Your task to perform on an android device: Open privacy settings Image 0: 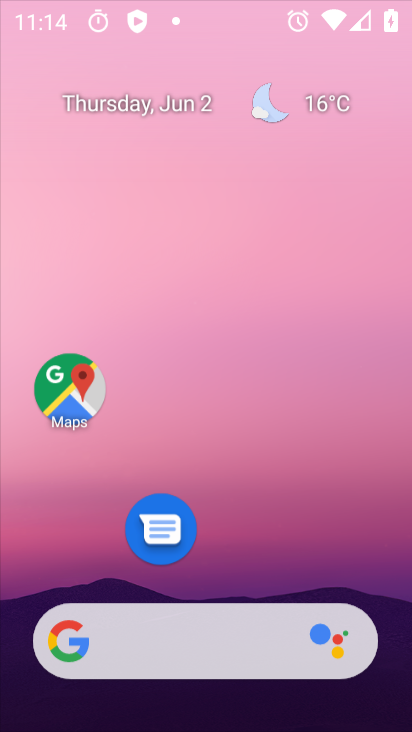
Step 0: click (154, 175)
Your task to perform on an android device: Open privacy settings Image 1: 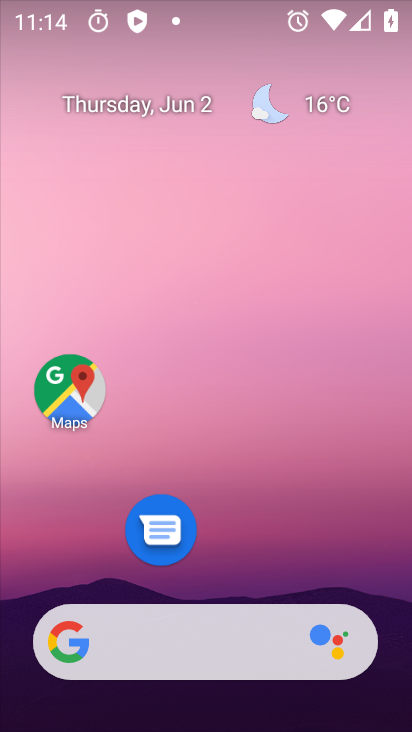
Step 1: drag from (250, 481) to (200, 151)
Your task to perform on an android device: Open privacy settings Image 2: 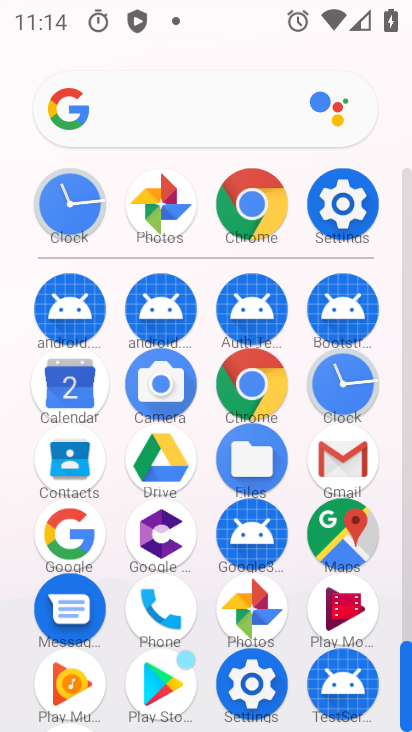
Step 2: click (361, 210)
Your task to perform on an android device: Open privacy settings Image 3: 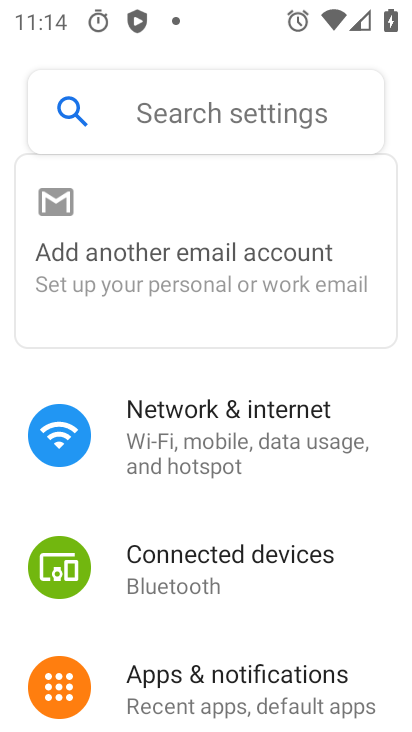
Step 3: click (135, 70)
Your task to perform on an android device: Open privacy settings Image 4: 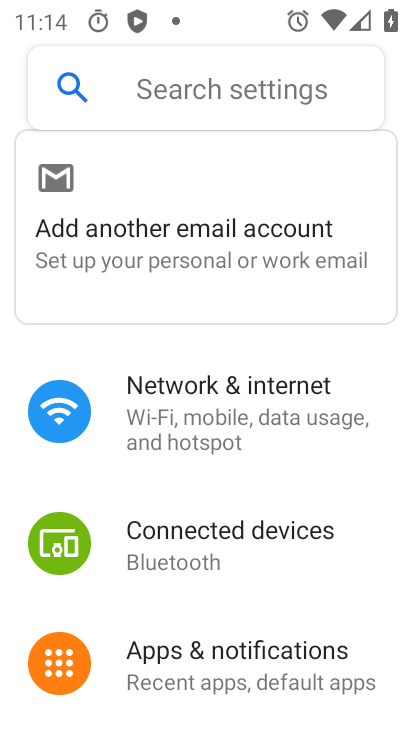
Step 4: drag from (202, 502) to (154, 214)
Your task to perform on an android device: Open privacy settings Image 5: 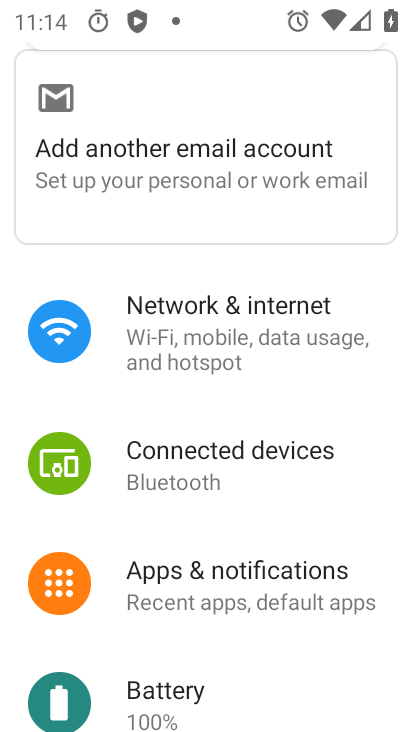
Step 5: drag from (220, 602) to (132, 304)
Your task to perform on an android device: Open privacy settings Image 6: 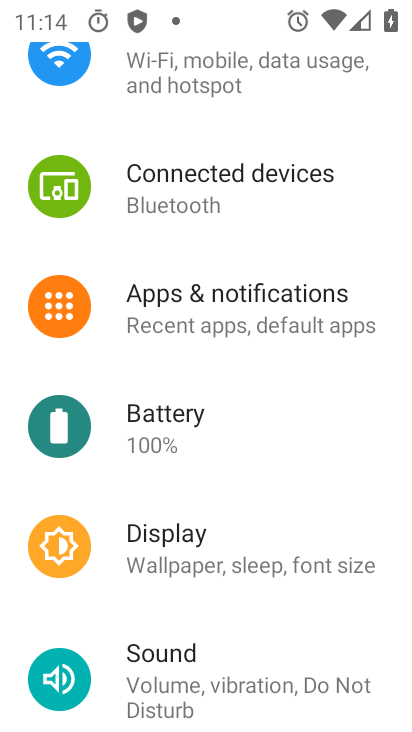
Step 6: drag from (179, 539) to (151, 291)
Your task to perform on an android device: Open privacy settings Image 7: 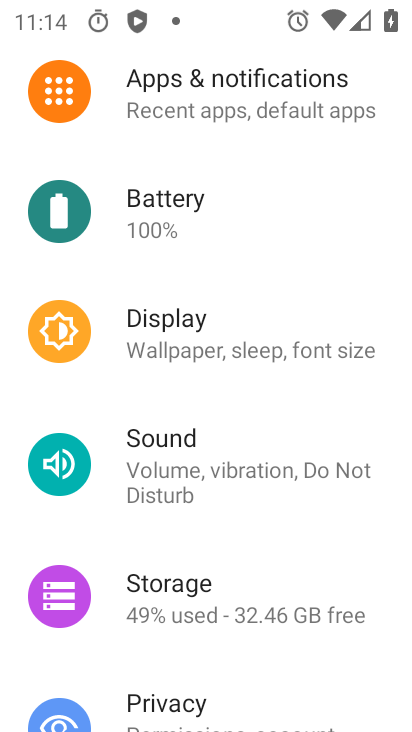
Step 7: drag from (242, 531) to (162, 202)
Your task to perform on an android device: Open privacy settings Image 8: 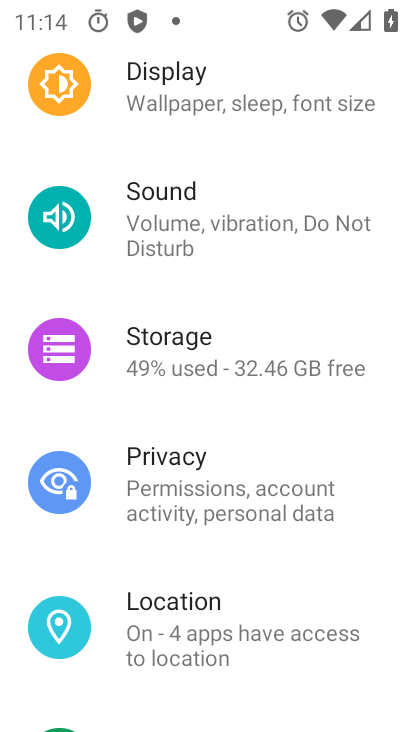
Step 8: click (166, 471)
Your task to perform on an android device: Open privacy settings Image 9: 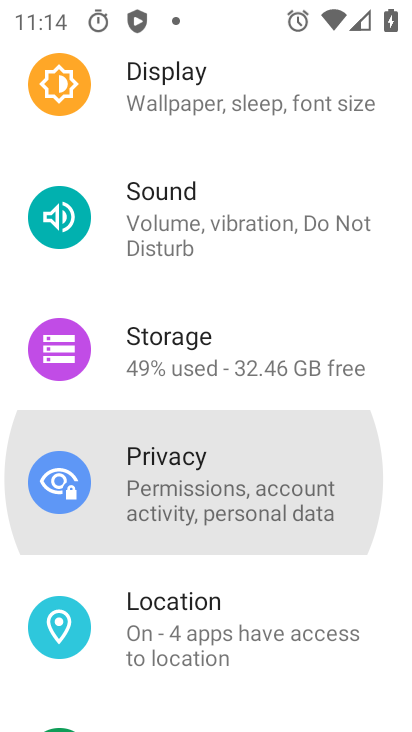
Step 9: click (164, 470)
Your task to perform on an android device: Open privacy settings Image 10: 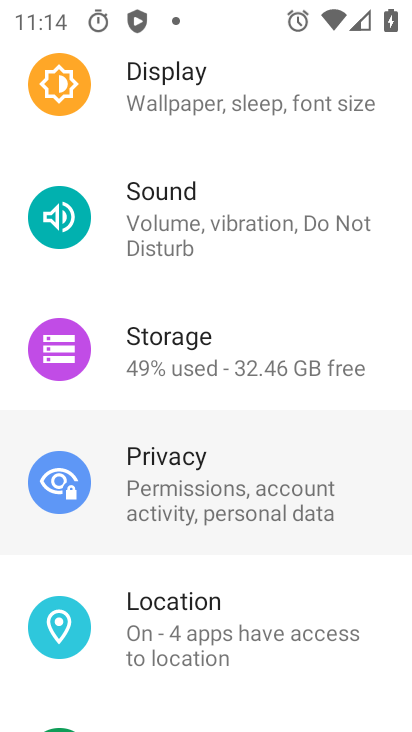
Step 10: click (160, 469)
Your task to perform on an android device: Open privacy settings Image 11: 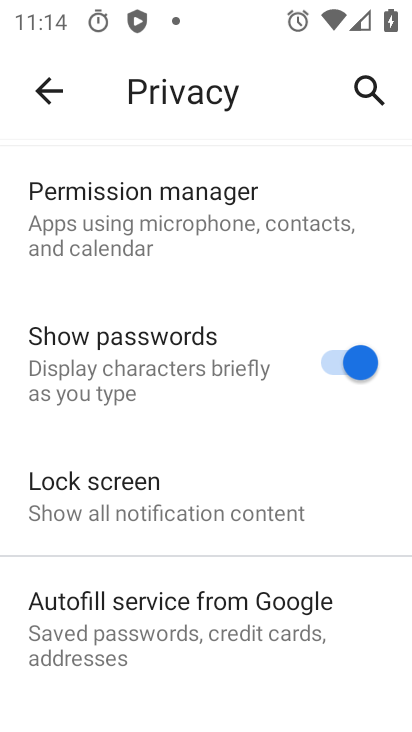
Step 11: task complete